Your task to perform on an android device: Go to ESPN.com Image 0: 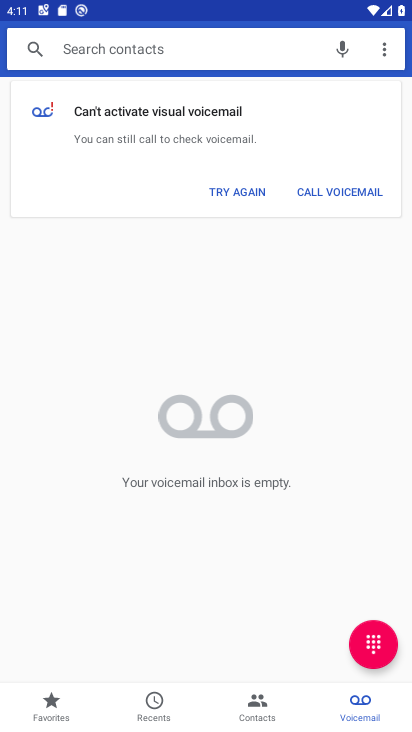
Step 0: press home button
Your task to perform on an android device: Go to ESPN.com Image 1: 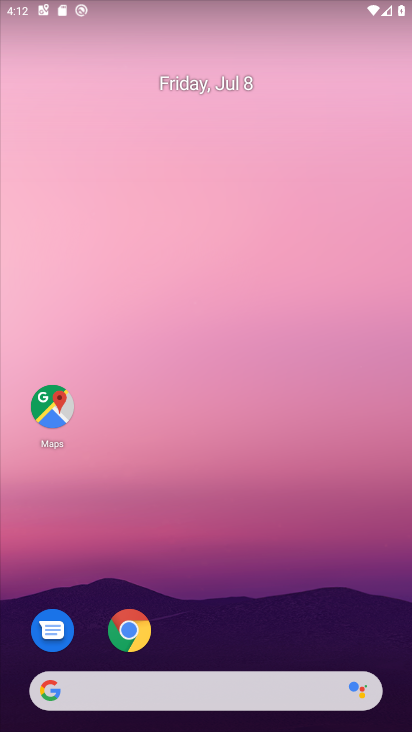
Step 1: drag from (302, 596) to (199, 40)
Your task to perform on an android device: Go to ESPN.com Image 2: 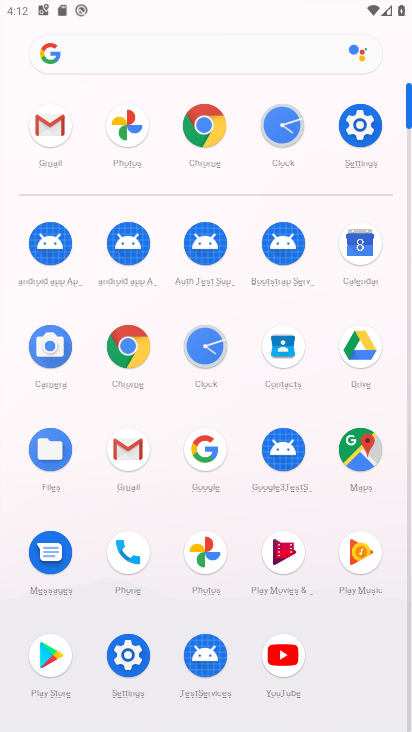
Step 2: click (203, 120)
Your task to perform on an android device: Go to ESPN.com Image 3: 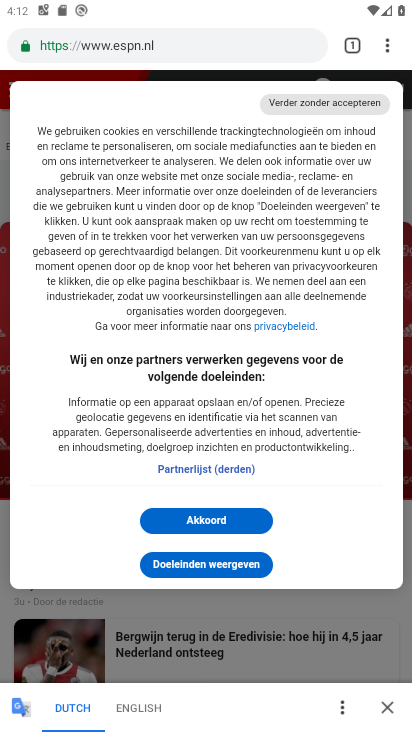
Step 3: click (186, 41)
Your task to perform on an android device: Go to ESPN.com Image 4: 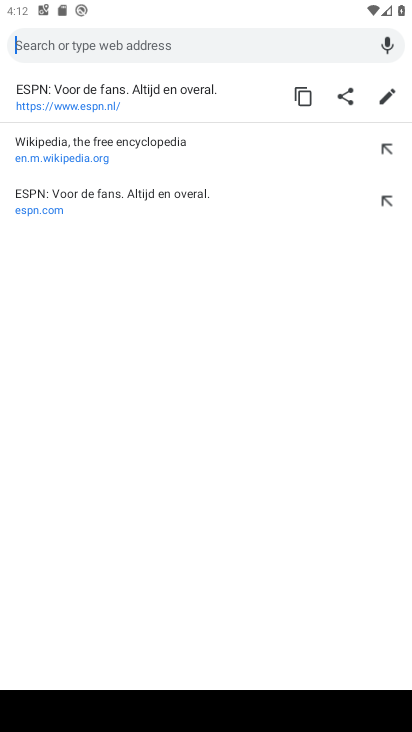
Step 4: click (107, 102)
Your task to perform on an android device: Go to ESPN.com Image 5: 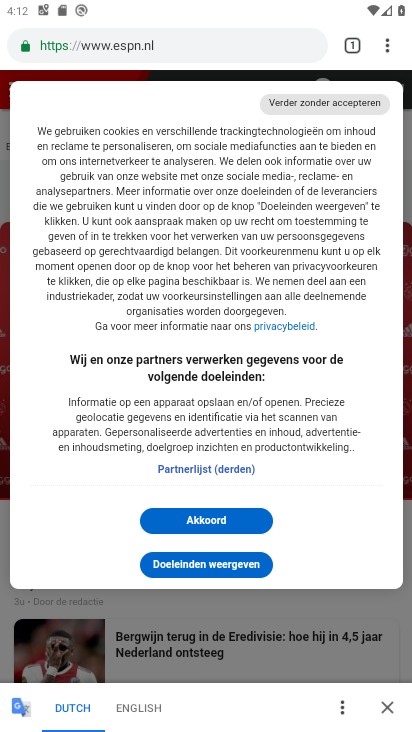
Step 5: task complete